Your task to perform on an android device: Is it going to rain tomorrow? Image 0: 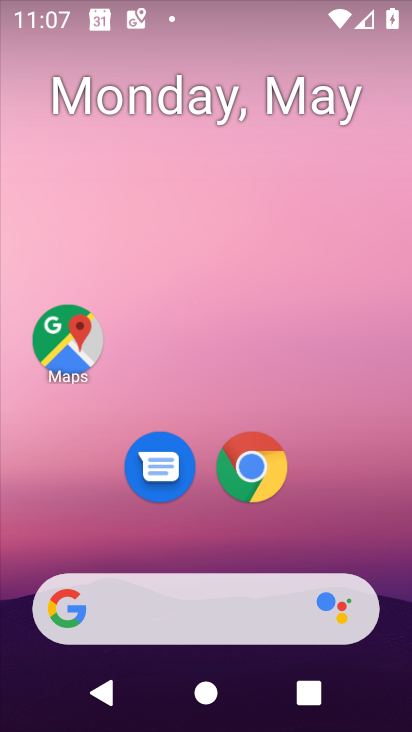
Step 0: drag from (1, 217) to (372, 328)
Your task to perform on an android device: Is it going to rain tomorrow? Image 1: 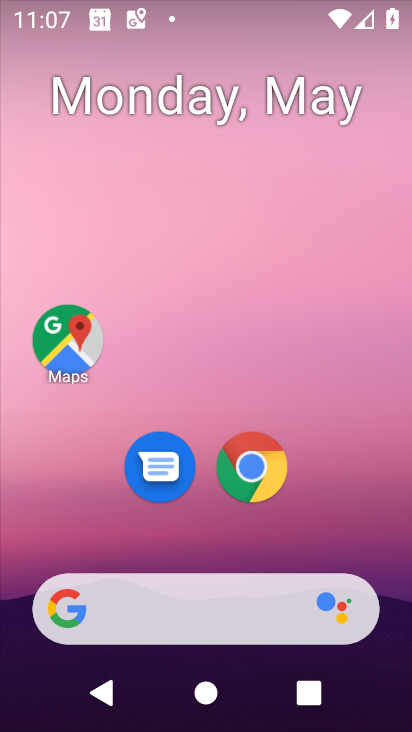
Step 1: drag from (42, 239) to (261, 381)
Your task to perform on an android device: Is it going to rain tomorrow? Image 2: 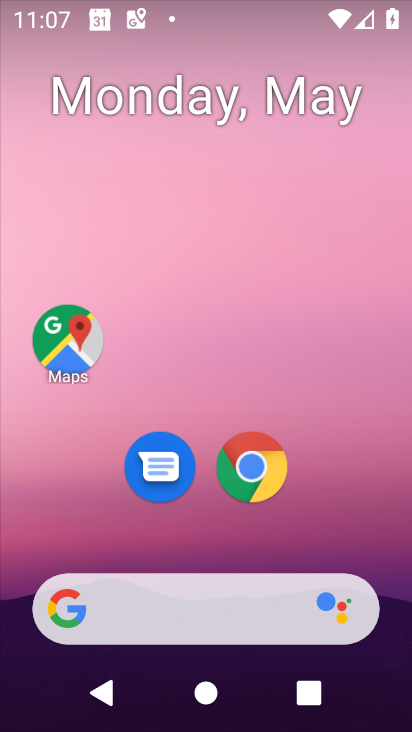
Step 2: drag from (0, 199) to (361, 366)
Your task to perform on an android device: Is it going to rain tomorrow? Image 3: 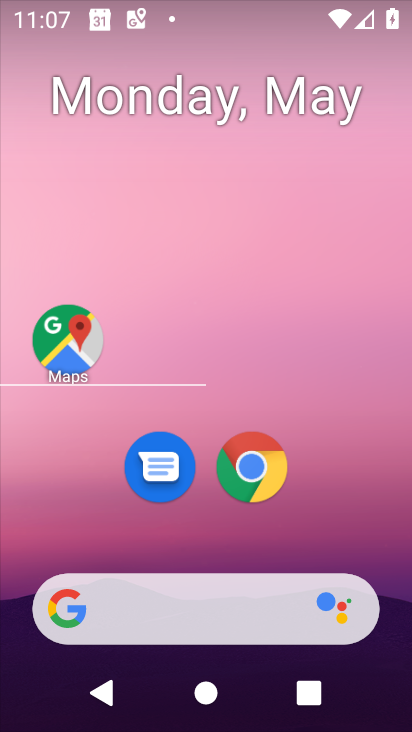
Step 3: drag from (15, 198) to (341, 363)
Your task to perform on an android device: Is it going to rain tomorrow? Image 4: 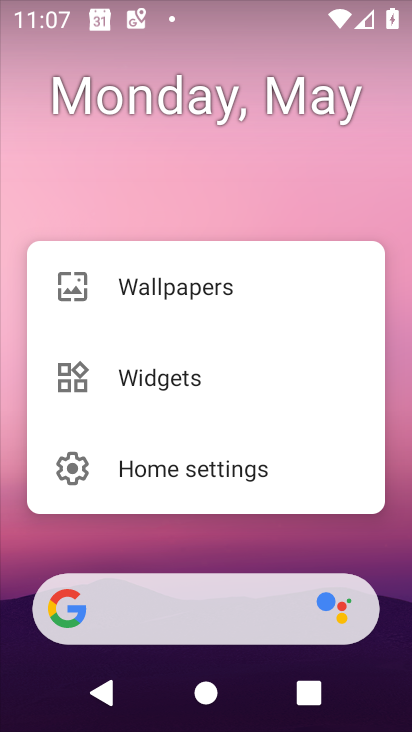
Step 4: drag from (27, 179) to (375, 298)
Your task to perform on an android device: Is it going to rain tomorrow? Image 5: 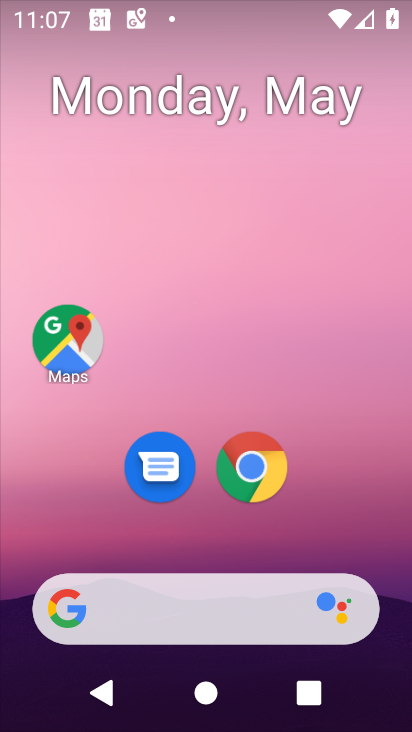
Step 5: drag from (42, 164) to (318, 221)
Your task to perform on an android device: Is it going to rain tomorrow? Image 6: 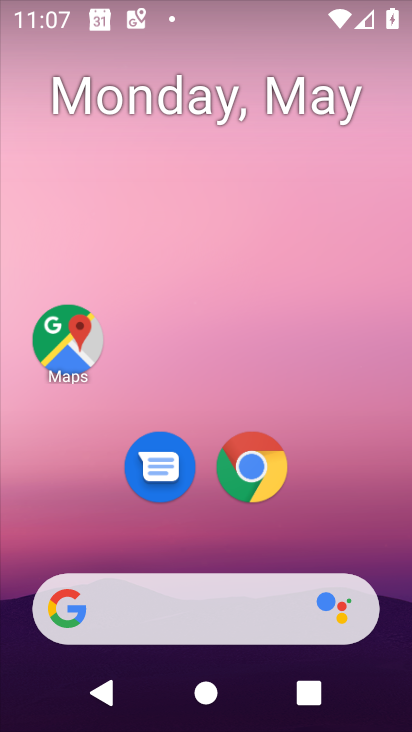
Step 6: drag from (17, 193) to (388, 310)
Your task to perform on an android device: Is it going to rain tomorrow? Image 7: 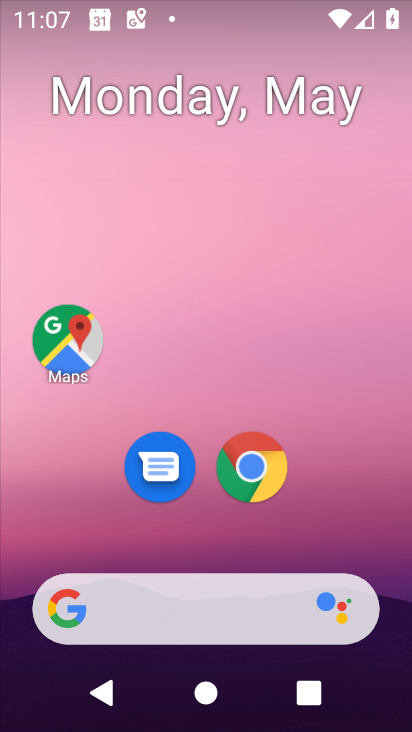
Step 7: drag from (400, 392) to (373, 313)
Your task to perform on an android device: Is it going to rain tomorrow? Image 8: 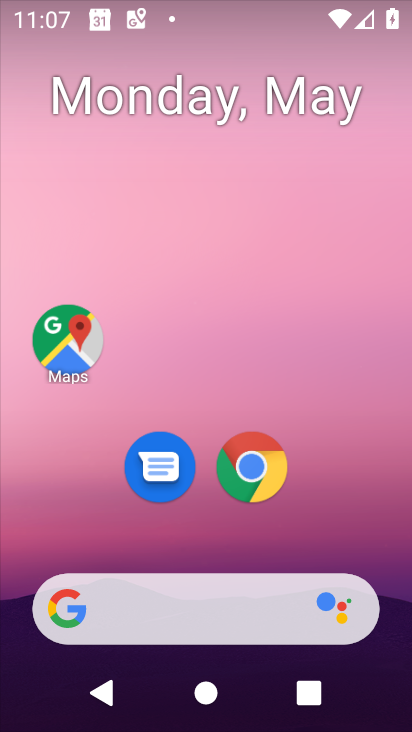
Step 8: drag from (32, 135) to (368, 438)
Your task to perform on an android device: Is it going to rain tomorrow? Image 9: 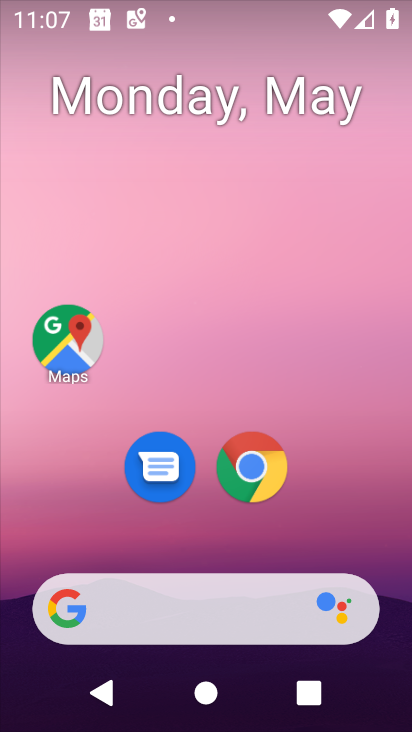
Step 9: drag from (8, 268) to (402, 319)
Your task to perform on an android device: Is it going to rain tomorrow? Image 10: 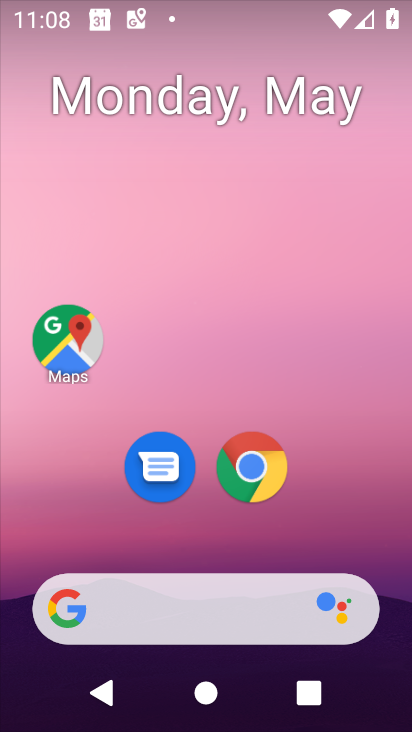
Step 10: drag from (8, 234) to (320, 316)
Your task to perform on an android device: Is it going to rain tomorrow? Image 11: 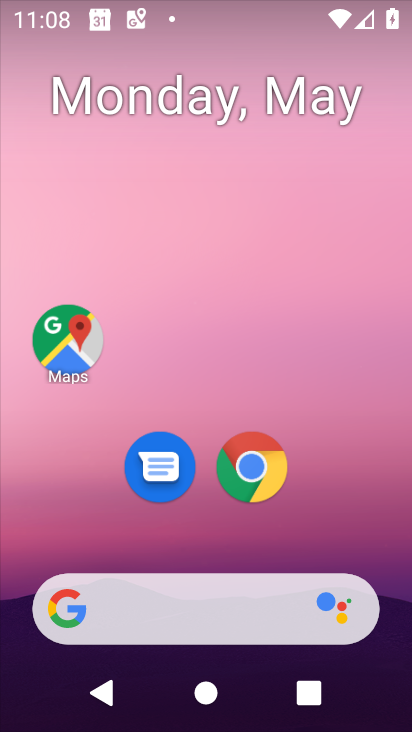
Step 11: drag from (11, 251) to (353, 327)
Your task to perform on an android device: Is it going to rain tomorrow? Image 12: 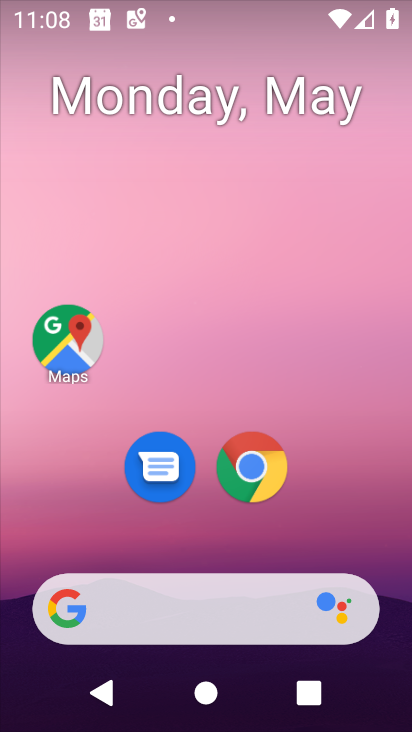
Step 12: drag from (5, 218) to (394, 400)
Your task to perform on an android device: Is it going to rain tomorrow? Image 13: 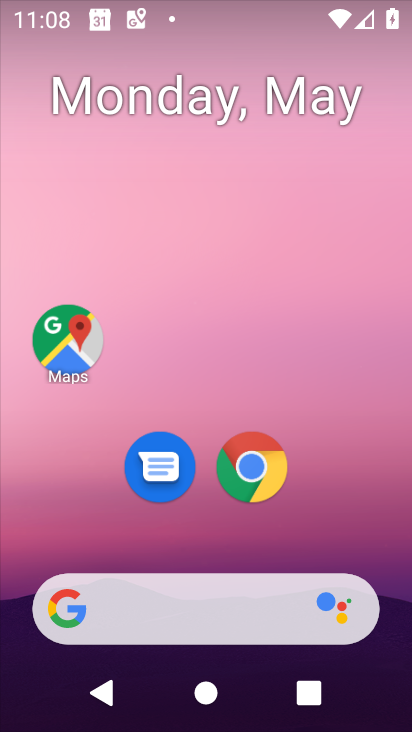
Step 13: drag from (13, 231) to (338, 414)
Your task to perform on an android device: Is it going to rain tomorrow? Image 14: 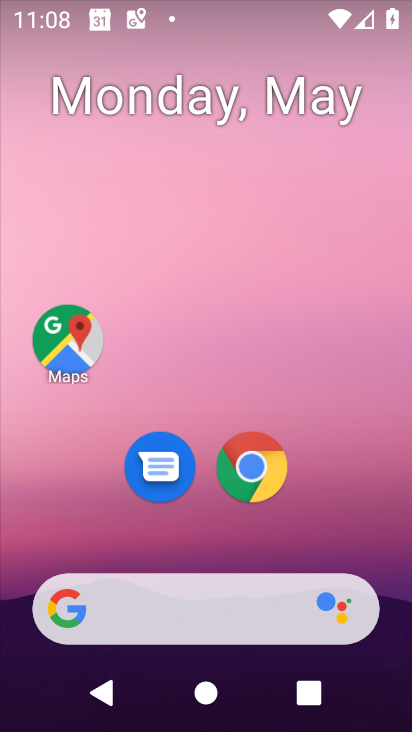
Step 14: drag from (12, 220) to (350, 303)
Your task to perform on an android device: Is it going to rain tomorrow? Image 15: 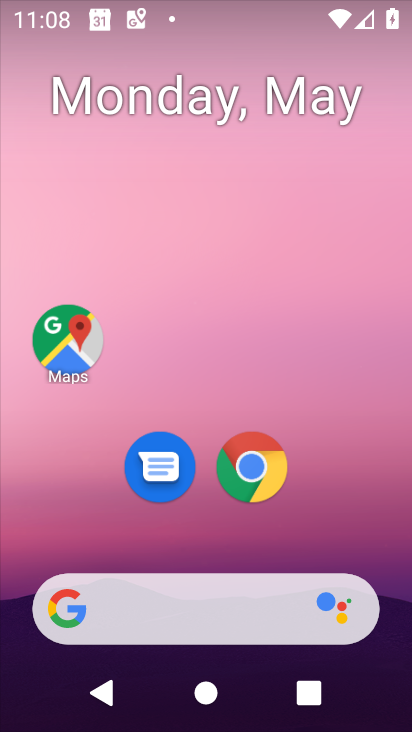
Step 15: drag from (18, 244) to (365, 448)
Your task to perform on an android device: Is it going to rain tomorrow? Image 16: 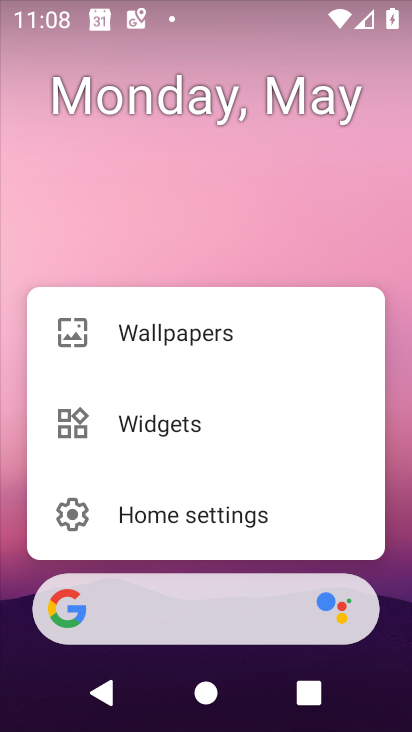
Step 16: drag from (367, 344) to (395, 299)
Your task to perform on an android device: Is it going to rain tomorrow? Image 17: 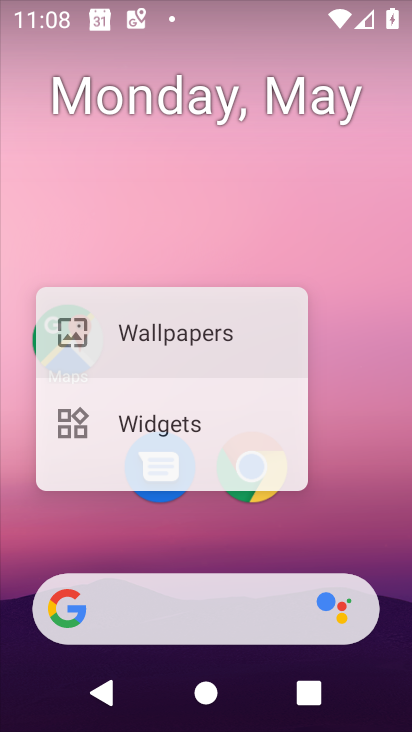
Step 17: drag from (98, 203) to (361, 433)
Your task to perform on an android device: Is it going to rain tomorrow? Image 18: 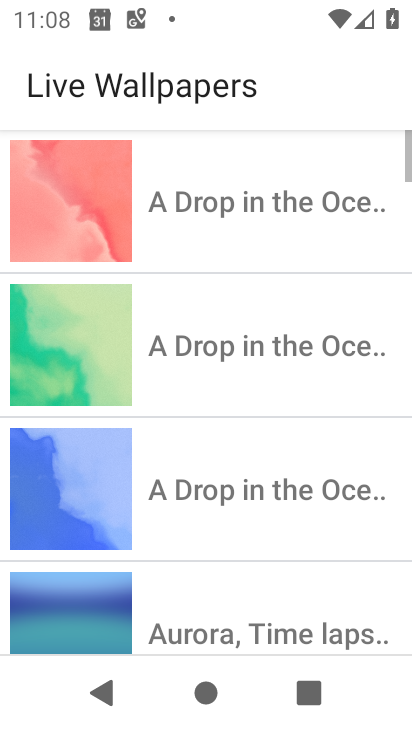
Step 18: drag from (16, 184) to (411, 360)
Your task to perform on an android device: Is it going to rain tomorrow? Image 19: 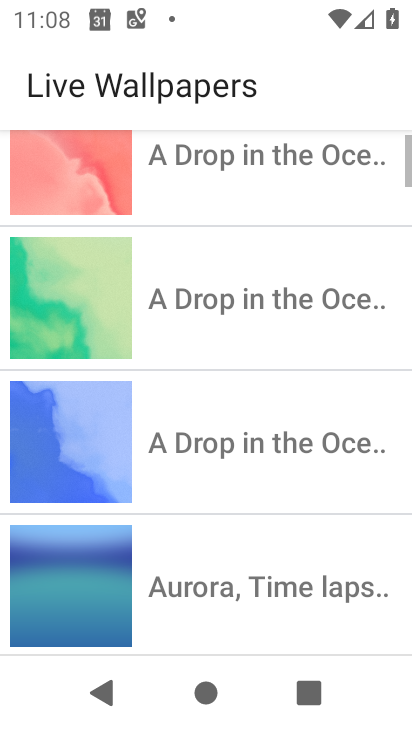
Step 19: press back button
Your task to perform on an android device: Is it going to rain tomorrow? Image 20: 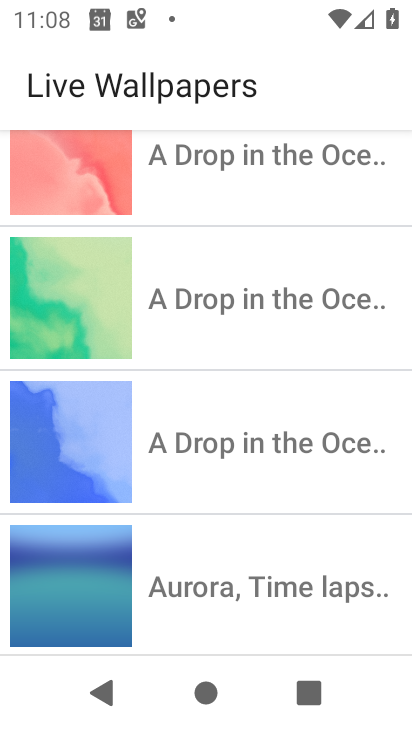
Step 20: press back button
Your task to perform on an android device: Is it going to rain tomorrow? Image 21: 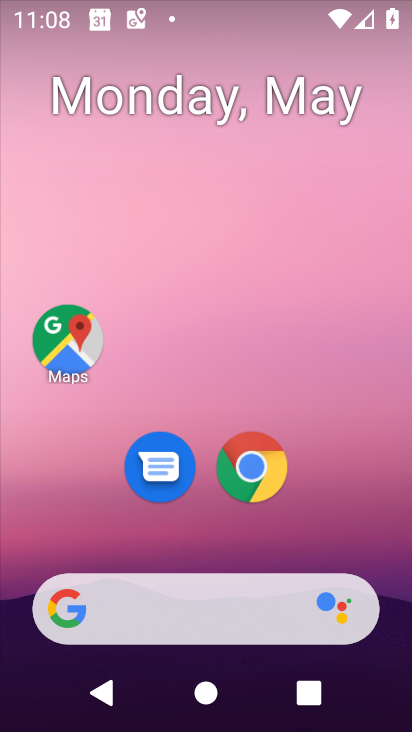
Step 21: press back button
Your task to perform on an android device: Is it going to rain tomorrow? Image 22: 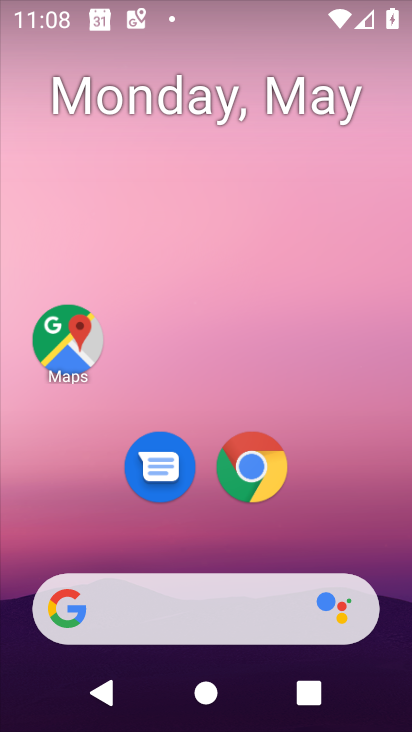
Step 22: press back button
Your task to perform on an android device: Is it going to rain tomorrow? Image 23: 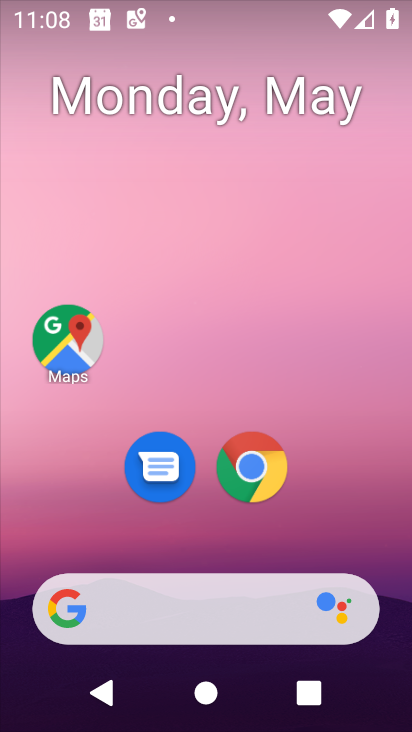
Step 23: drag from (7, 243) to (402, 458)
Your task to perform on an android device: Is it going to rain tomorrow? Image 24: 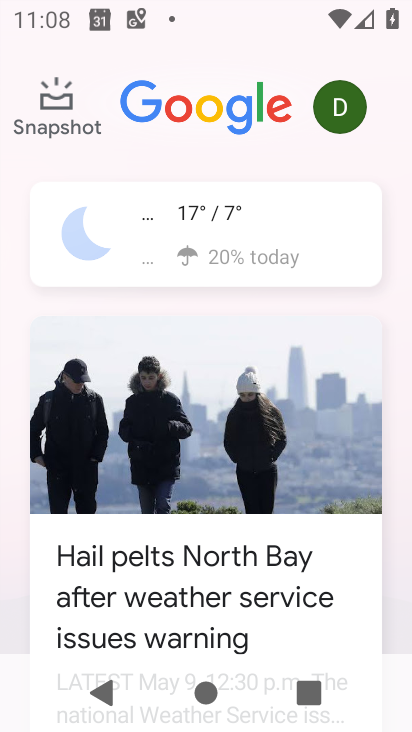
Step 24: click (215, 217)
Your task to perform on an android device: Is it going to rain tomorrow? Image 25: 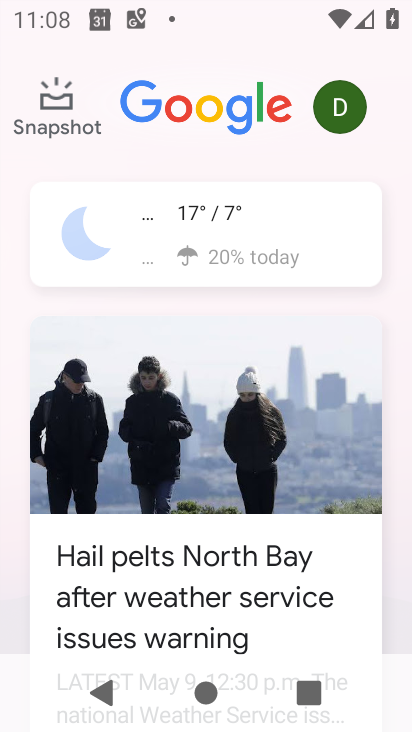
Step 25: click (216, 218)
Your task to perform on an android device: Is it going to rain tomorrow? Image 26: 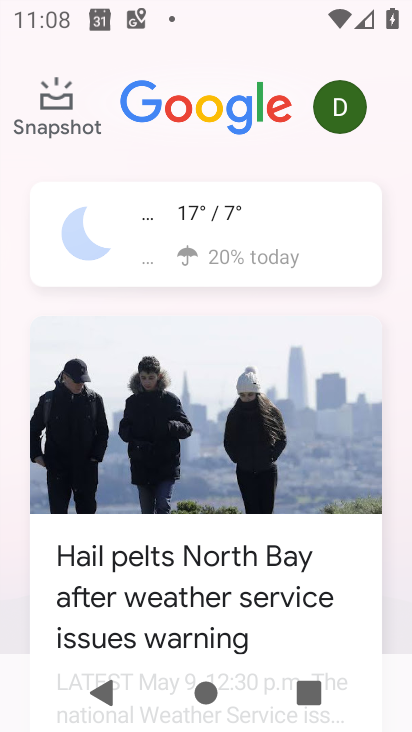
Step 26: click (217, 224)
Your task to perform on an android device: Is it going to rain tomorrow? Image 27: 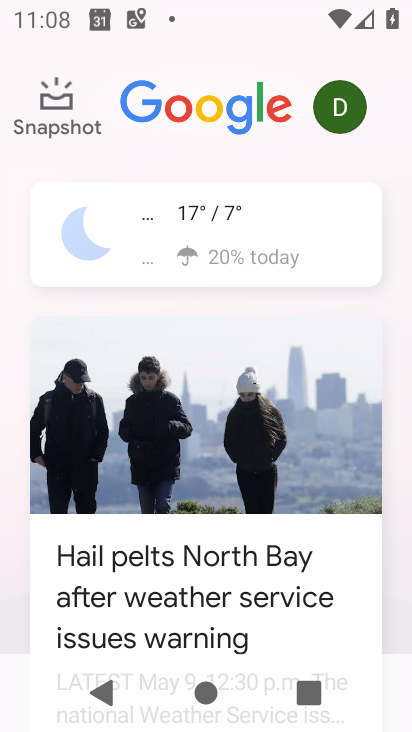
Step 27: click (218, 226)
Your task to perform on an android device: Is it going to rain tomorrow? Image 28: 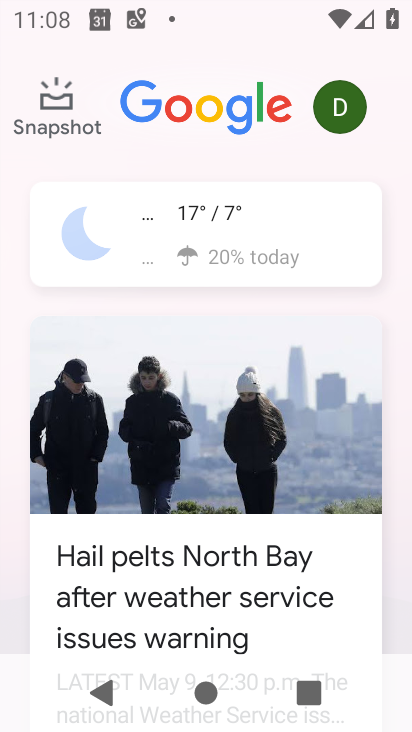
Step 28: click (218, 226)
Your task to perform on an android device: Is it going to rain tomorrow? Image 29: 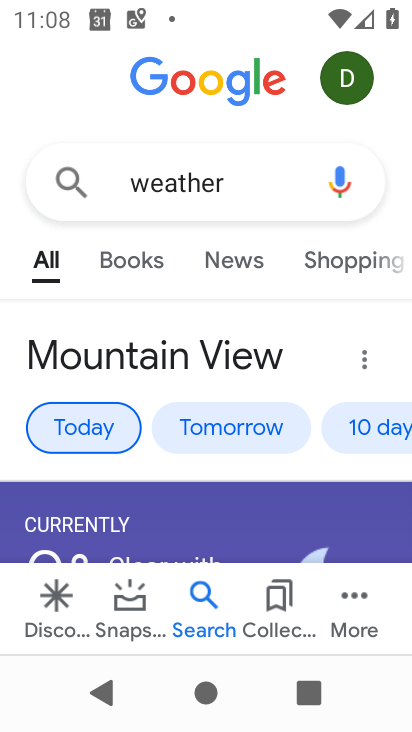
Step 29: click (247, 420)
Your task to perform on an android device: Is it going to rain tomorrow? Image 30: 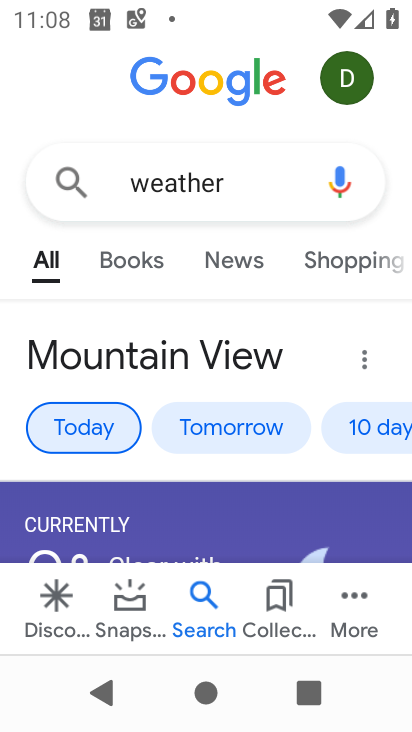
Step 30: click (248, 419)
Your task to perform on an android device: Is it going to rain tomorrow? Image 31: 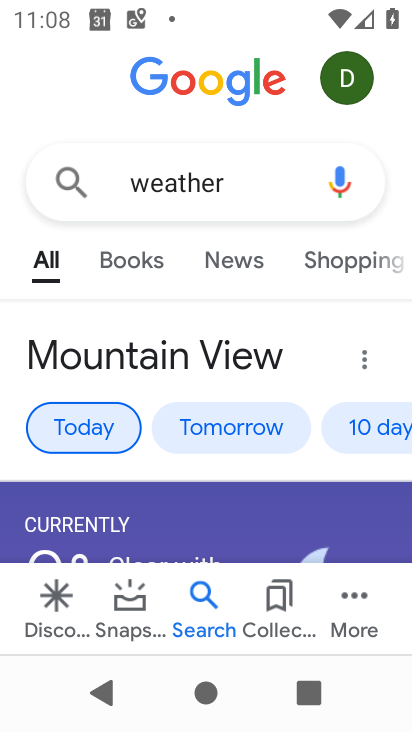
Step 31: click (248, 420)
Your task to perform on an android device: Is it going to rain tomorrow? Image 32: 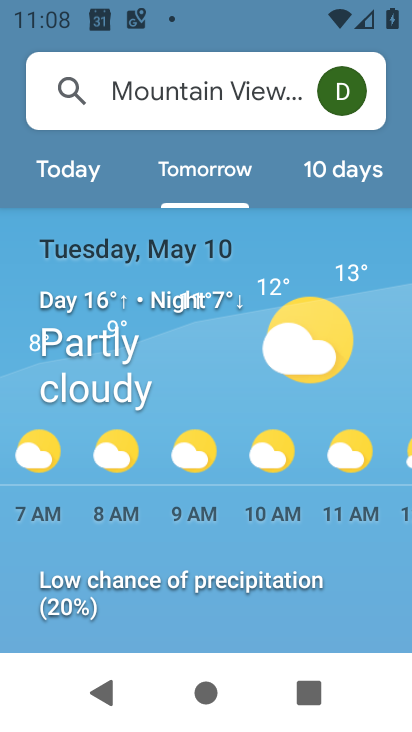
Step 32: task complete